Your task to perform on an android device: change the clock display to digital Image 0: 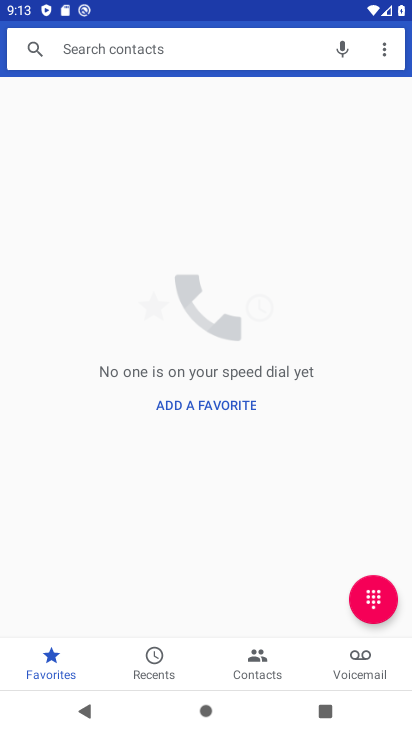
Step 0: press home button
Your task to perform on an android device: change the clock display to digital Image 1: 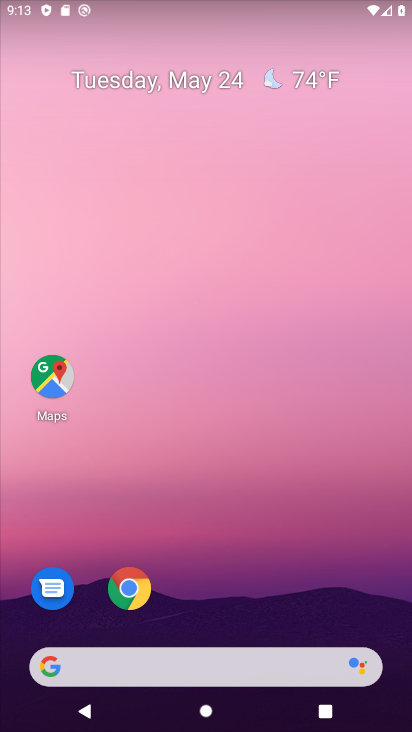
Step 1: drag from (242, 374) to (221, 194)
Your task to perform on an android device: change the clock display to digital Image 2: 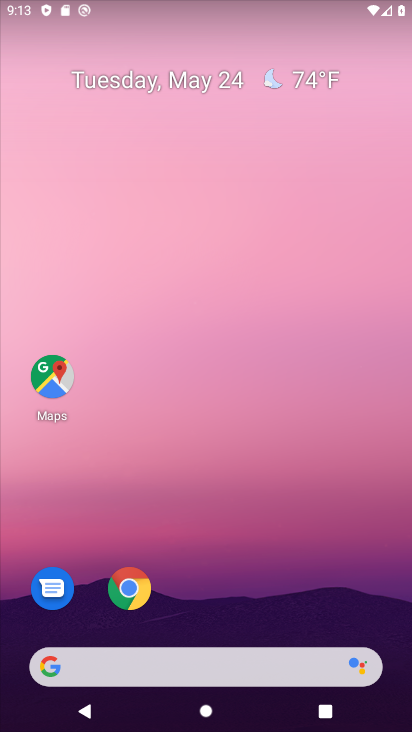
Step 2: drag from (207, 617) to (223, 109)
Your task to perform on an android device: change the clock display to digital Image 3: 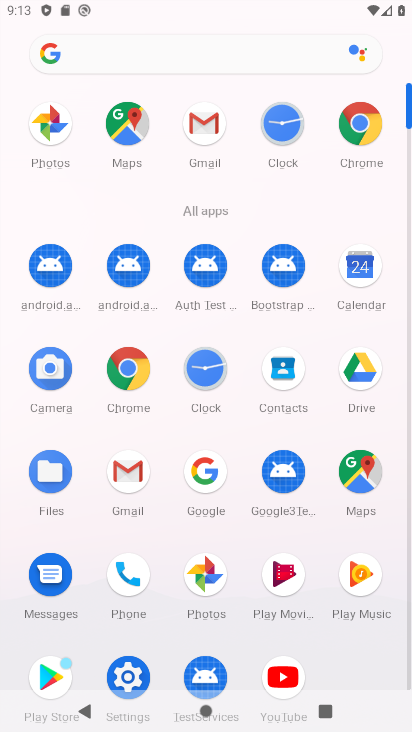
Step 3: click (289, 105)
Your task to perform on an android device: change the clock display to digital Image 4: 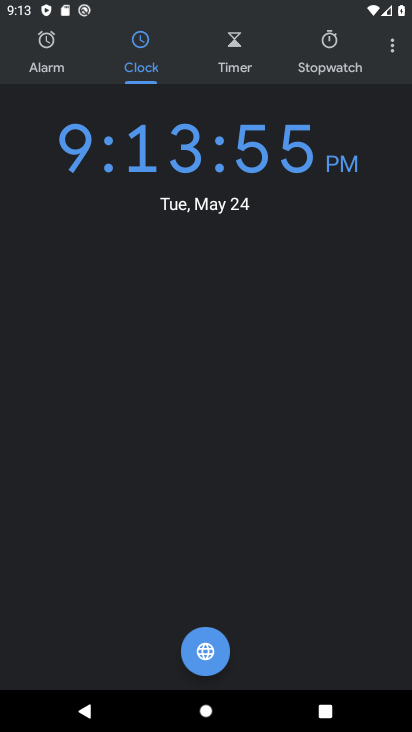
Step 4: click (402, 48)
Your task to perform on an android device: change the clock display to digital Image 5: 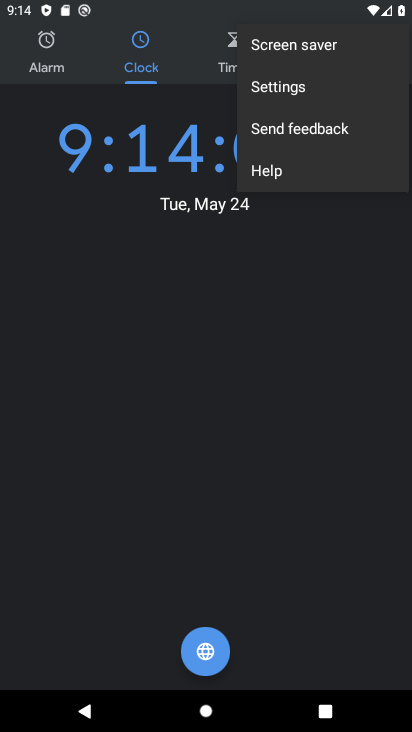
Step 5: click (324, 98)
Your task to perform on an android device: change the clock display to digital Image 6: 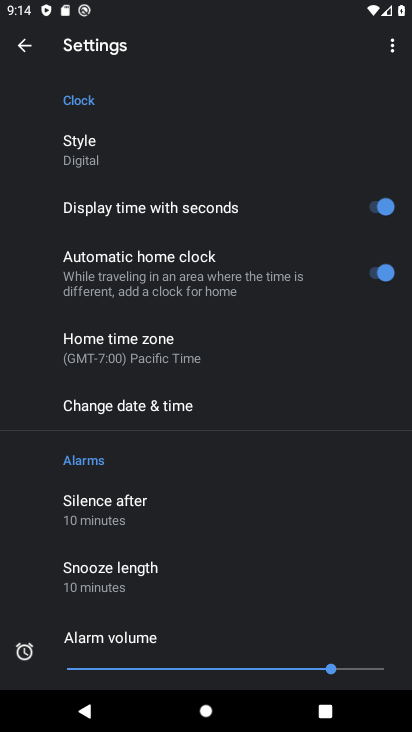
Step 6: click (103, 150)
Your task to perform on an android device: change the clock display to digital Image 7: 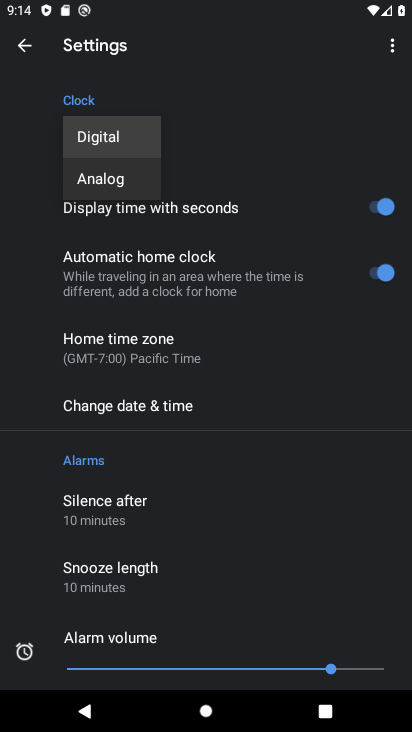
Step 7: task complete